Your task to perform on an android device: toggle wifi Image 0: 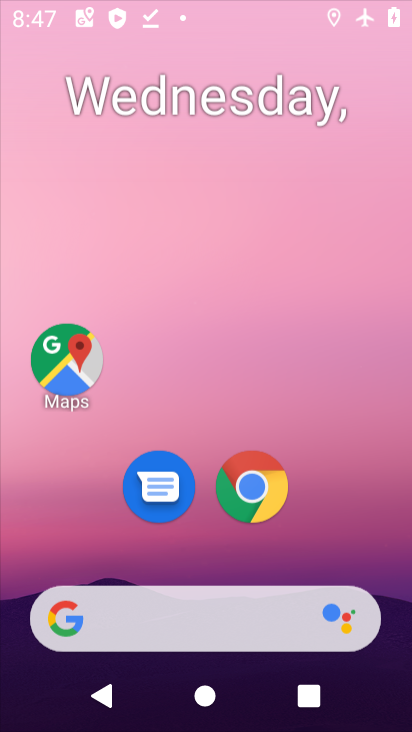
Step 0: click (195, 176)
Your task to perform on an android device: toggle wifi Image 1: 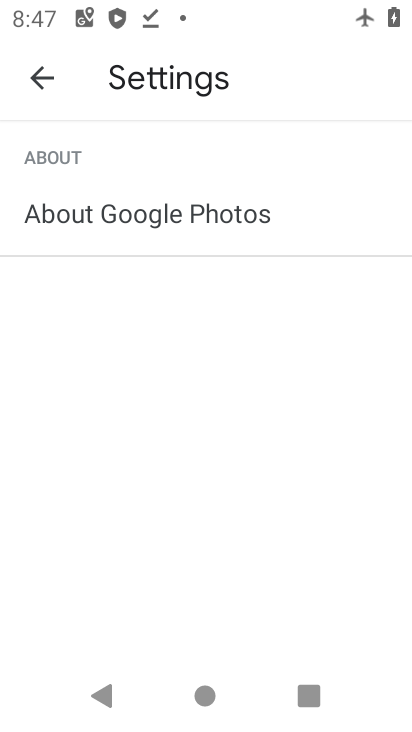
Step 1: click (35, 70)
Your task to perform on an android device: toggle wifi Image 2: 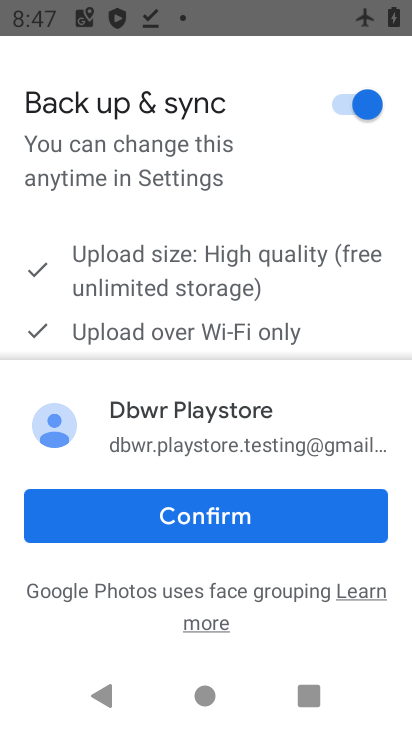
Step 2: press back button
Your task to perform on an android device: toggle wifi Image 3: 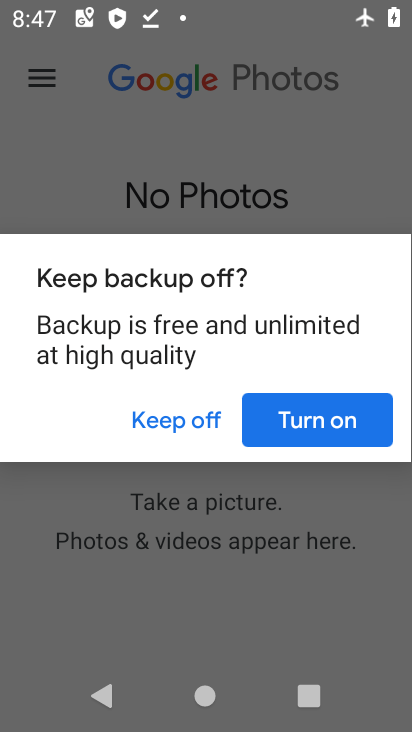
Step 3: click (142, 417)
Your task to perform on an android device: toggle wifi Image 4: 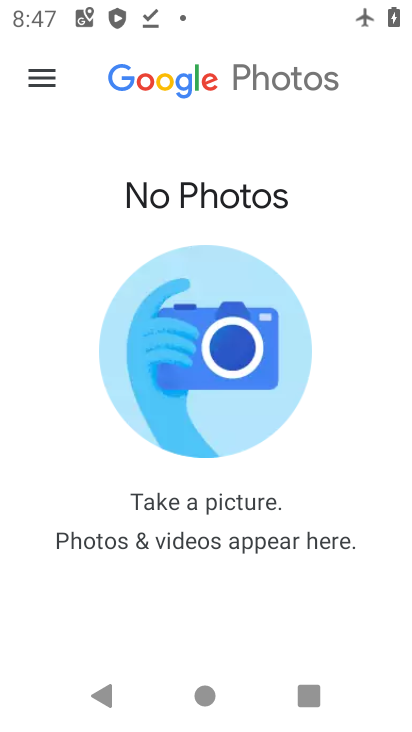
Step 4: press home button
Your task to perform on an android device: toggle wifi Image 5: 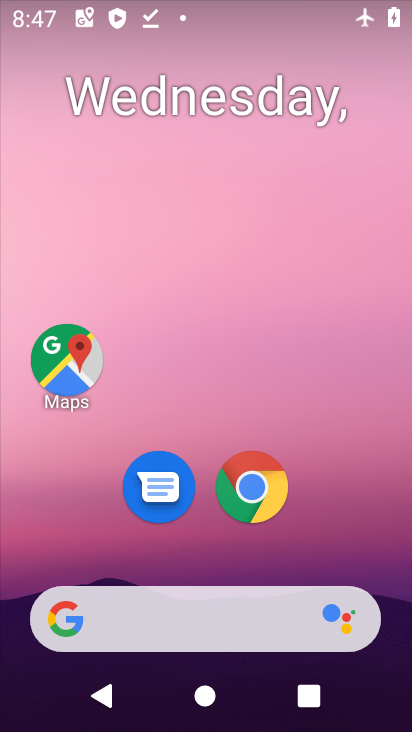
Step 5: drag from (223, 534) to (143, 93)
Your task to perform on an android device: toggle wifi Image 6: 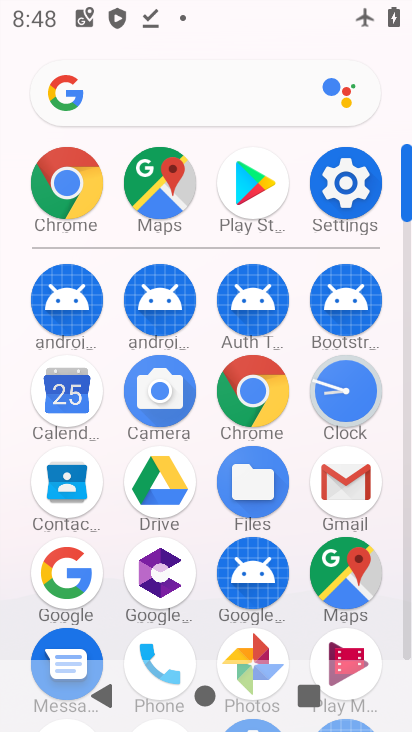
Step 6: click (332, 194)
Your task to perform on an android device: toggle wifi Image 7: 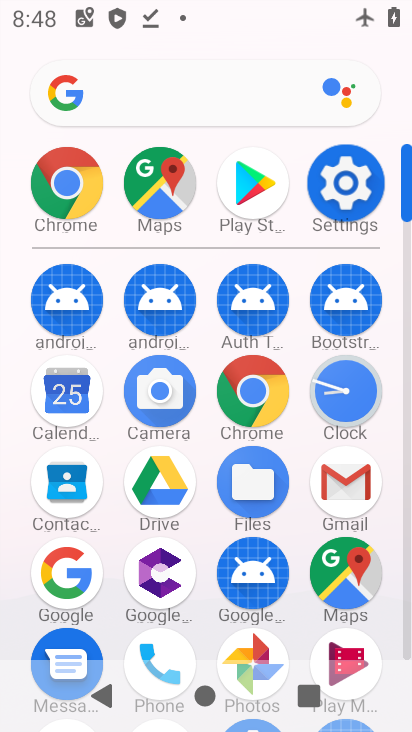
Step 7: click (342, 198)
Your task to perform on an android device: toggle wifi Image 8: 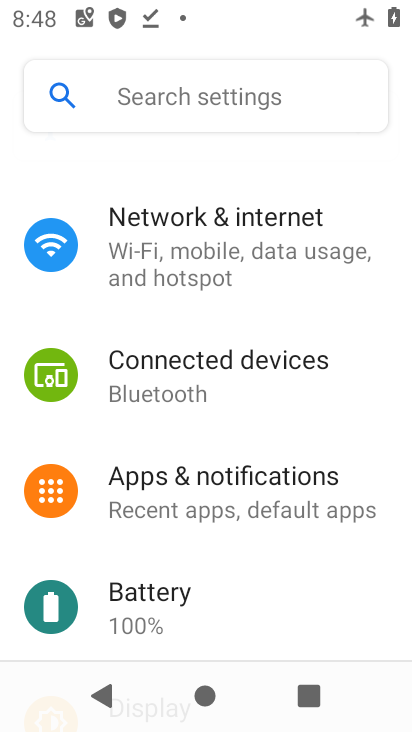
Step 8: click (344, 199)
Your task to perform on an android device: toggle wifi Image 9: 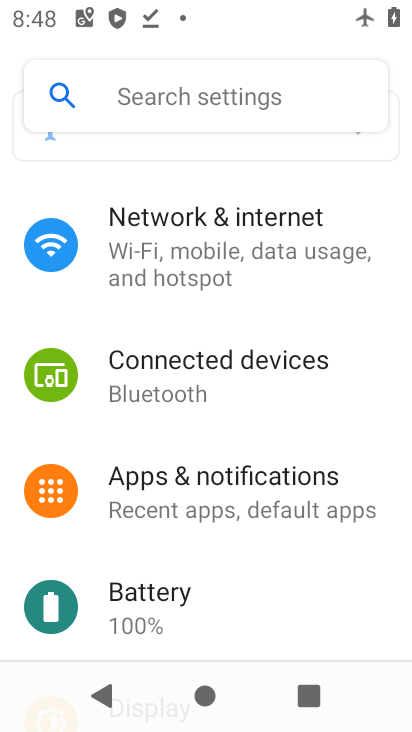
Step 9: click (348, 199)
Your task to perform on an android device: toggle wifi Image 10: 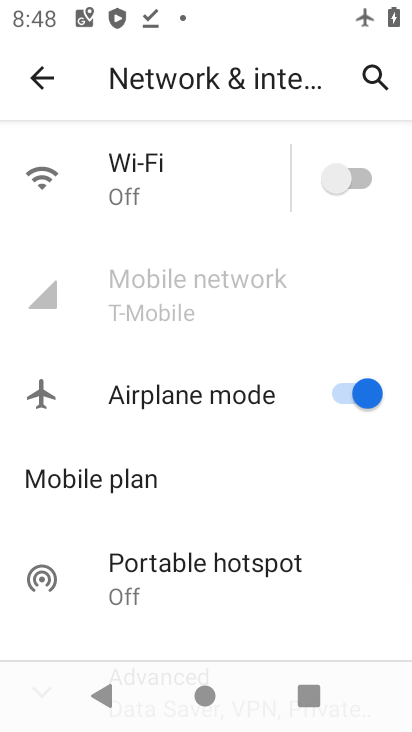
Step 10: click (332, 184)
Your task to perform on an android device: toggle wifi Image 11: 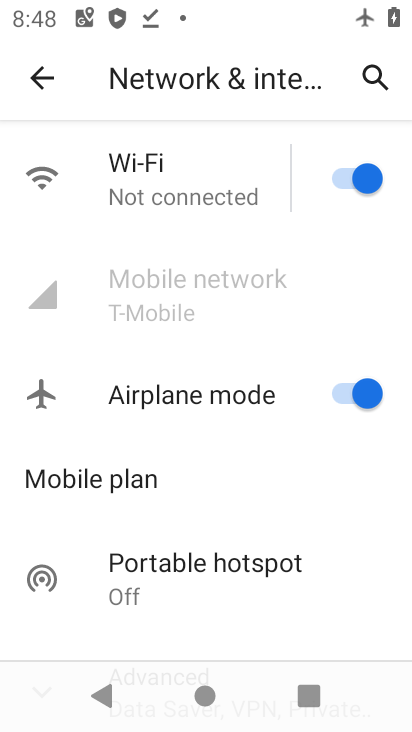
Step 11: click (362, 392)
Your task to perform on an android device: toggle wifi Image 12: 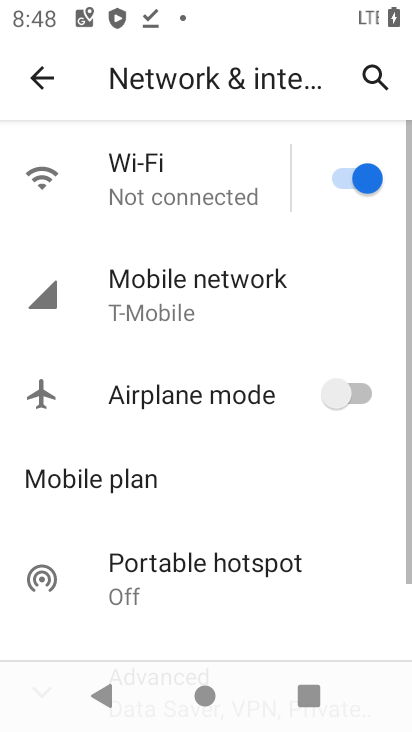
Step 12: task complete